Your task to perform on an android device: Open Amazon Image 0: 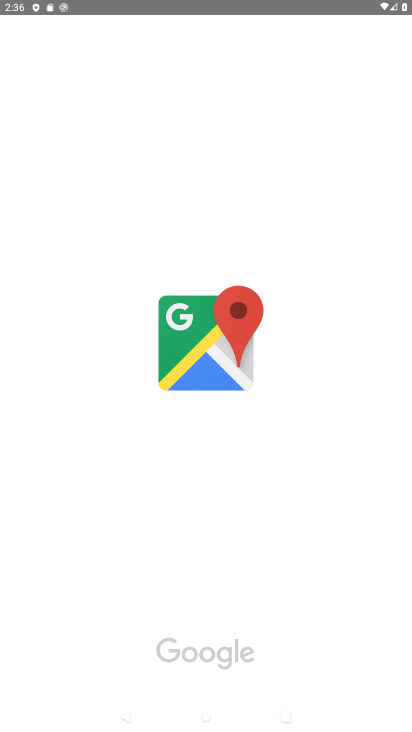
Step 0: press back button
Your task to perform on an android device: Open Amazon Image 1: 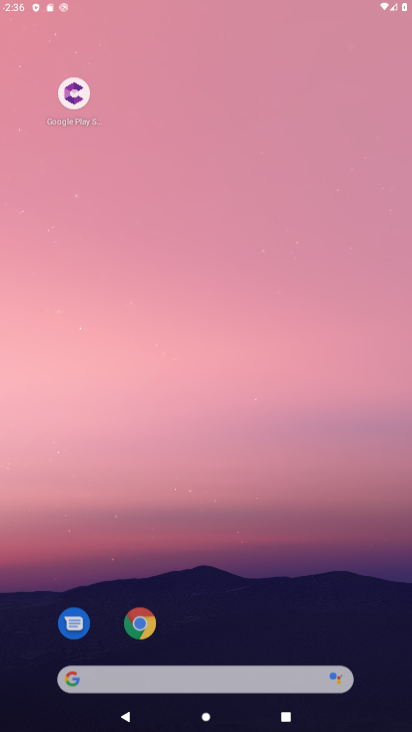
Step 1: press home button
Your task to perform on an android device: Open Amazon Image 2: 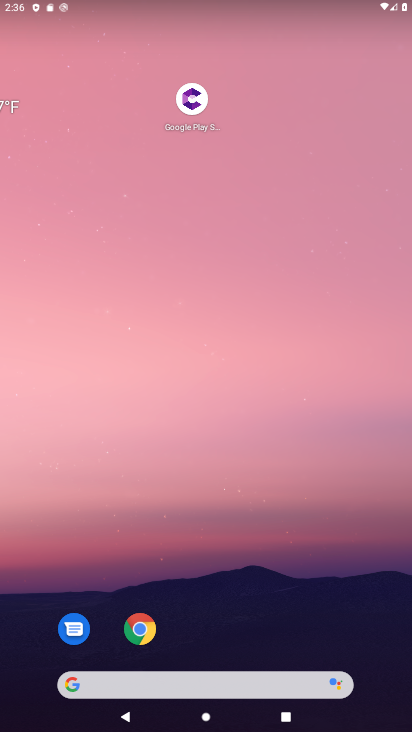
Step 2: drag from (199, 569) to (133, 184)
Your task to perform on an android device: Open Amazon Image 3: 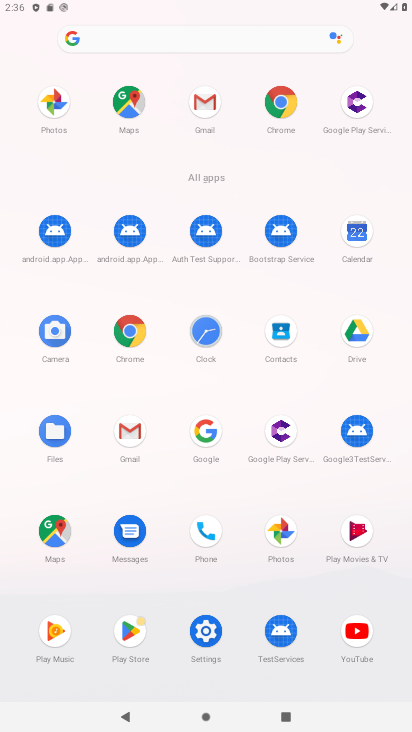
Step 3: click (271, 95)
Your task to perform on an android device: Open Amazon Image 4: 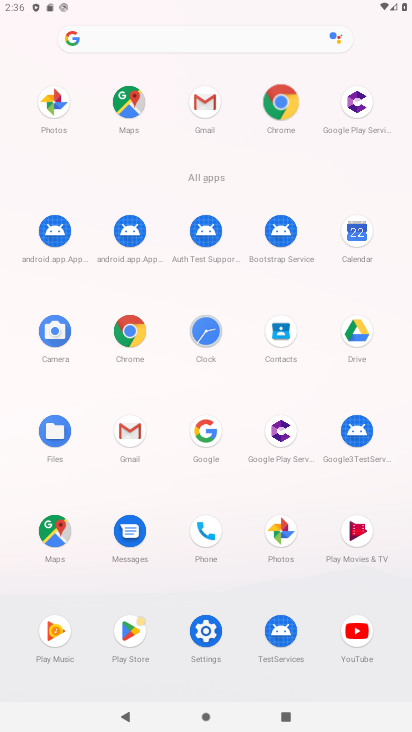
Step 4: click (275, 93)
Your task to perform on an android device: Open Amazon Image 5: 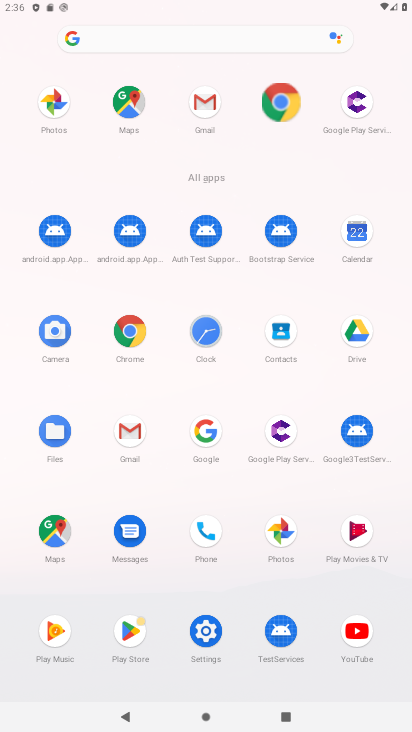
Step 5: click (275, 93)
Your task to perform on an android device: Open Amazon Image 6: 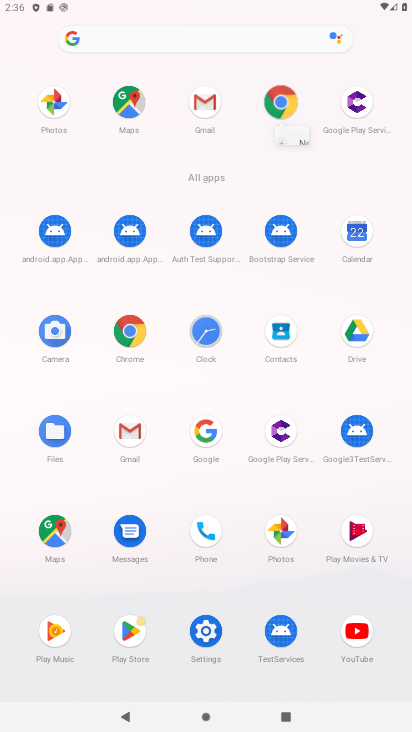
Step 6: click (278, 94)
Your task to perform on an android device: Open Amazon Image 7: 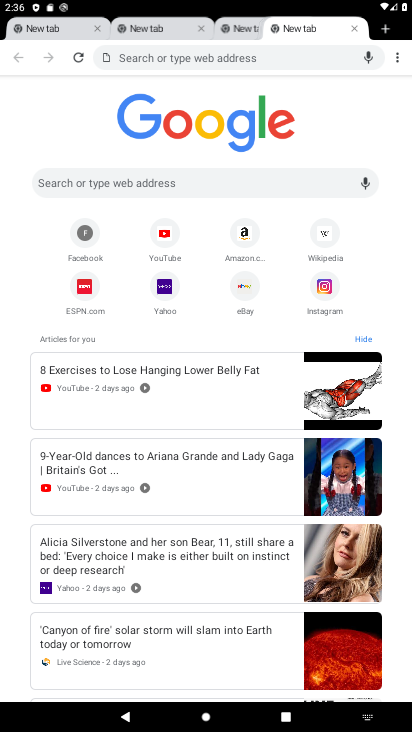
Step 7: click (232, 241)
Your task to perform on an android device: Open Amazon Image 8: 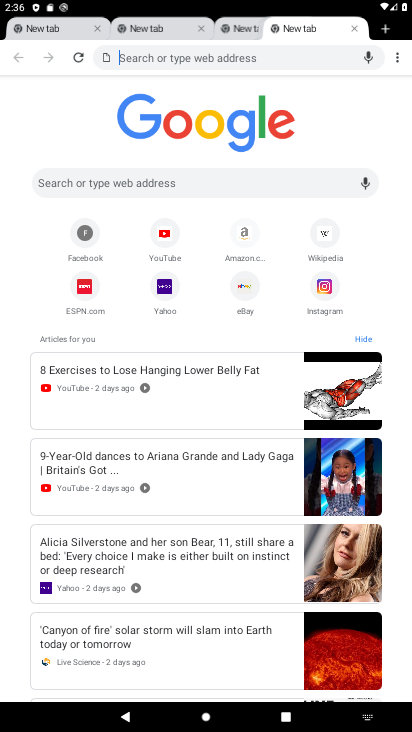
Step 8: click (243, 238)
Your task to perform on an android device: Open Amazon Image 9: 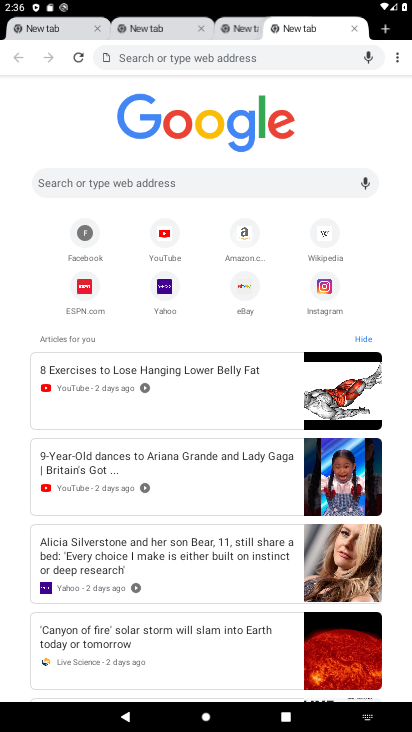
Step 9: click (247, 213)
Your task to perform on an android device: Open Amazon Image 10: 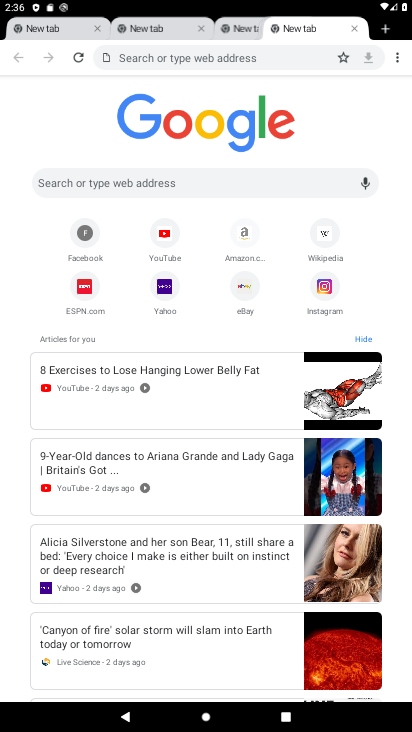
Step 10: click (248, 226)
Your task to perform on an android device: Open Amazon Image 11: 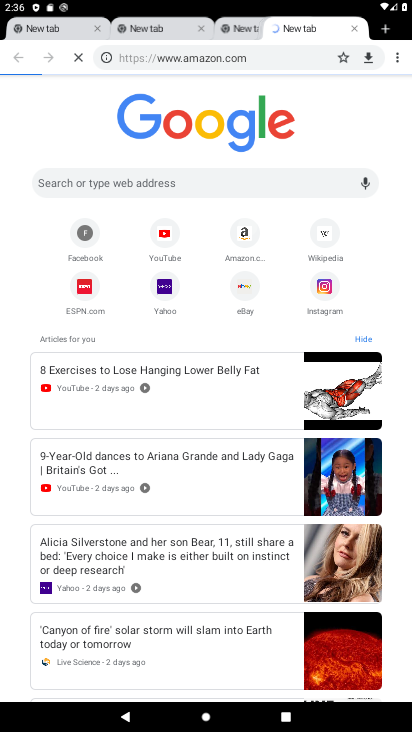
Step 11: click (248, 227)
Your task to perform on an android device: Open Amazon Image 12: 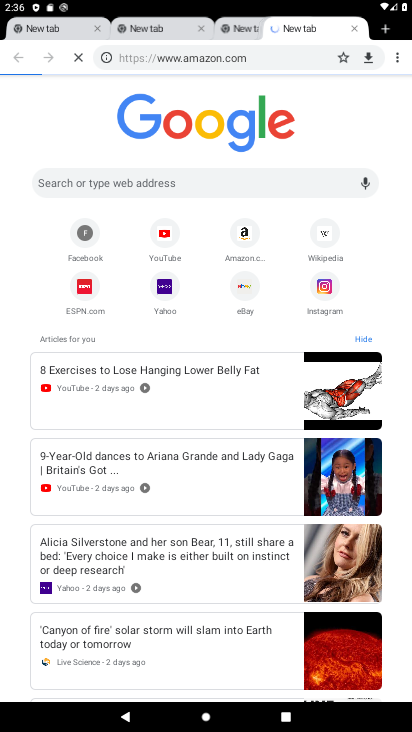
Step 12: click (248, 232)
Your task to perform on an android device: Open Amazon Image 13: 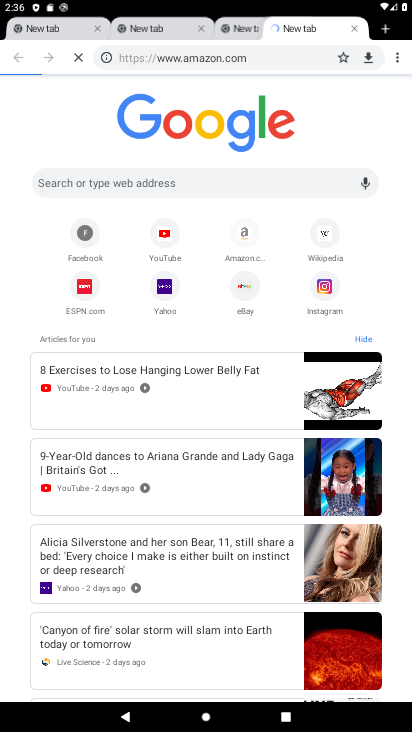
Step 13: click (249, 236)
Your task to perform on an android device: Open Amazon Image 14: 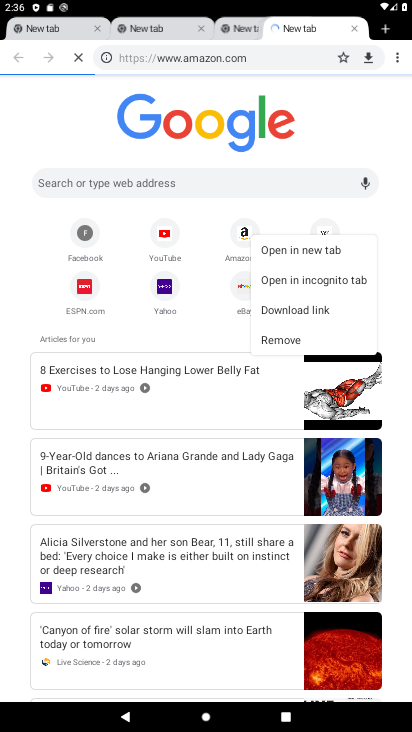
Step 14: click (253, 238)
Your task to perform on an android device: Open Amazon Image 15: 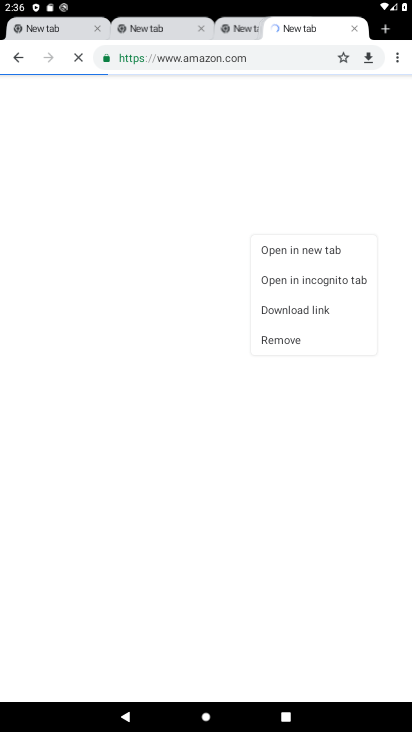
Step 15: click (253, 238)
Your task to perform on an android device: Open Amazon Image 16: 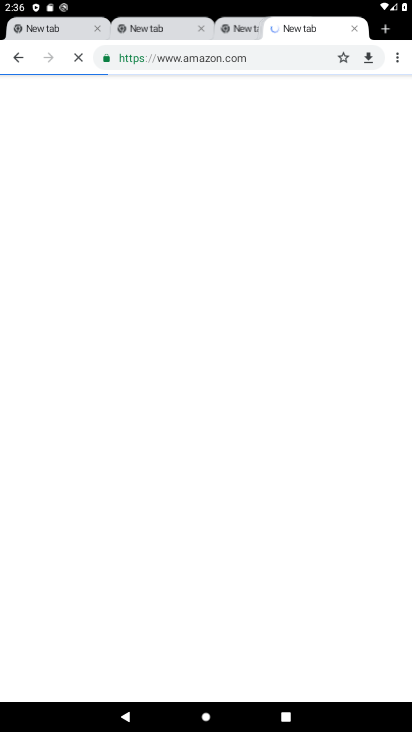
Step 16: click (254, 233)
Your task to perform on an android device: Open Amazon Image 17: 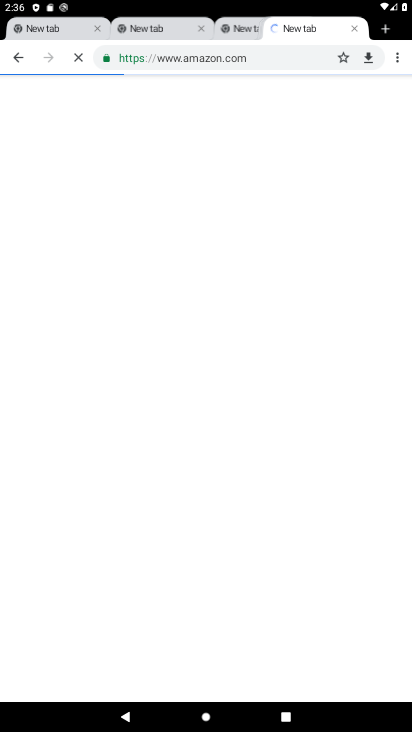
Step 17: click (254, 233)
Your task to perform on an android device: Open Amazon Image 18: 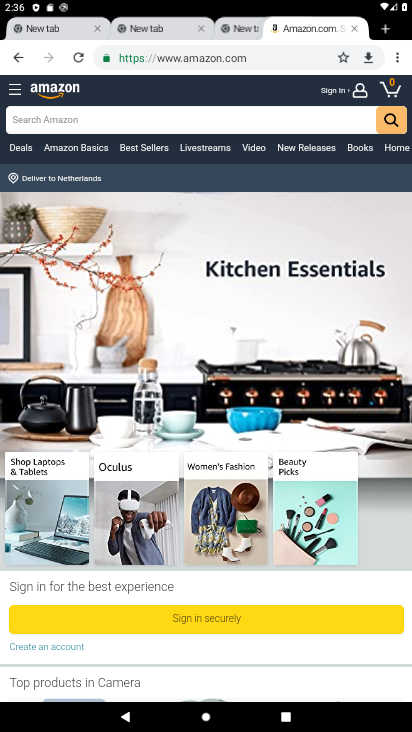
Step 18: task complete